Your task to perform on an android device: turn off location history Image 0: 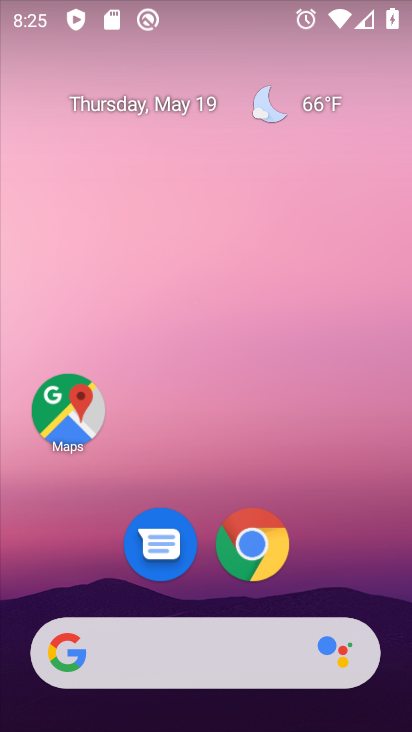
Step 0: drag from (382, 589) to (302, 25)
Your task to perform on an android device: turn off location history Image 1: 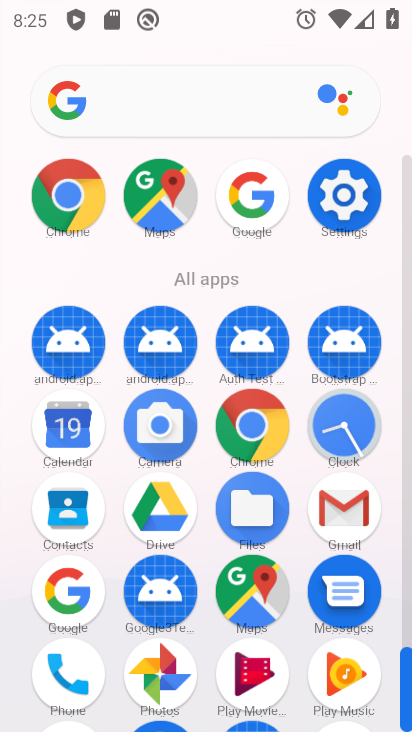
Step 1: click (340, 204)
Your task to perform on an android device: turn off location history Image 2: 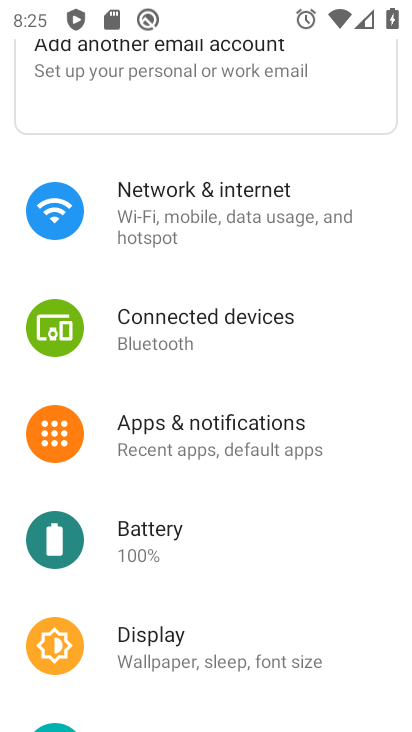
Step 2: drag from (224, 487) to (282, 158)
Your task to perform on an android device: turn off location history Image 3: 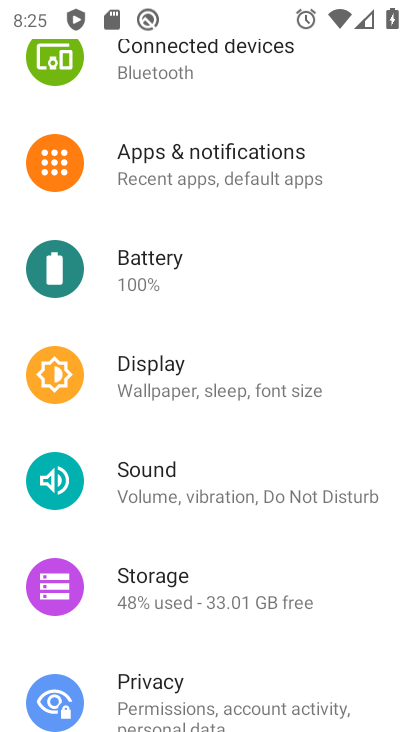
Step 3: drag from (189, 679) to (272, 285)
Your task to perform on an android device: turn off location history Image 4: 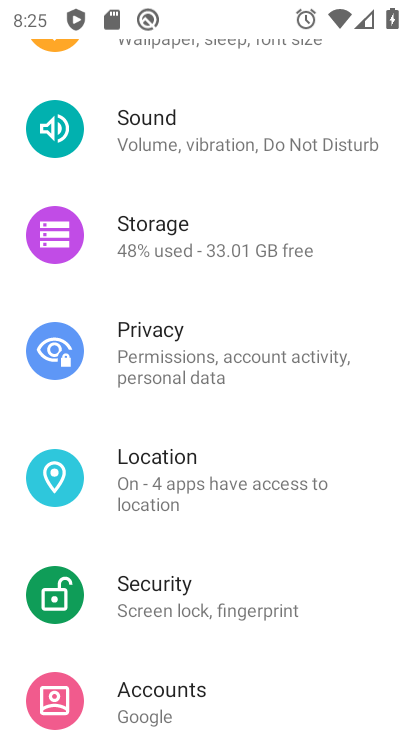
Step 4: click (161, 471)
Your task to perform on an android device: turn off location history Image 5: 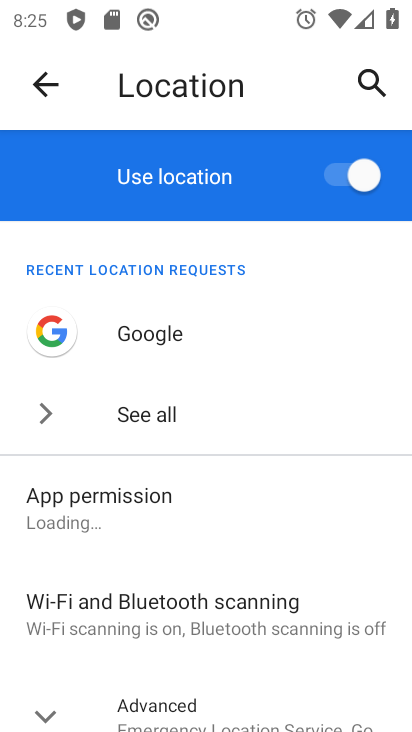
Step 5: click (139, 707)
Your task to perform on an android device: turn off location history Image 6: 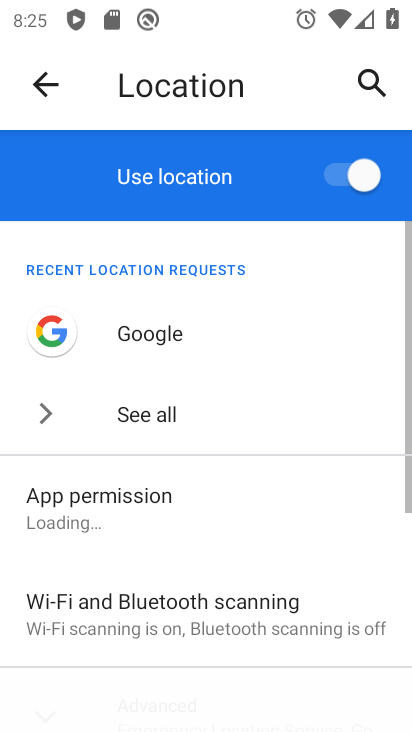
Step 6: drag from (174, 666) to (251, 261)
Your task to perform on an android device: turn off location history Image 7: 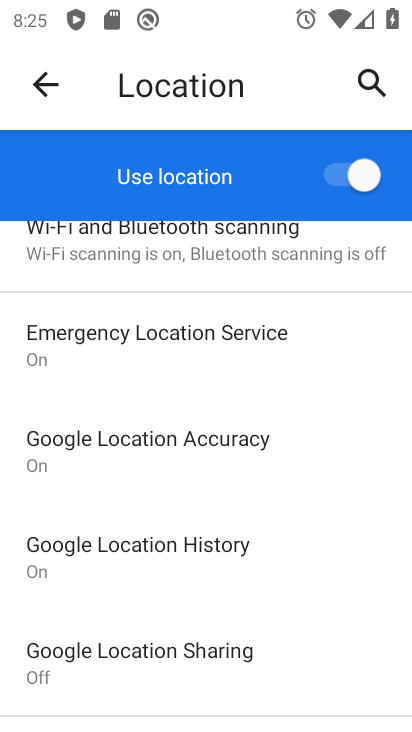
Step 7: click (216, 566)
Your task to perform on an android device: turn off location history Image 8: 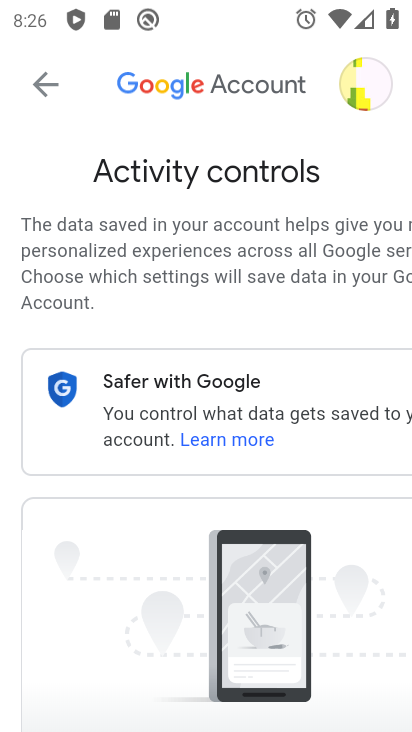
Step 8: drag from (318, 594) to (229, 40)
Your task to perform on an android device: turn off location history Image 9: 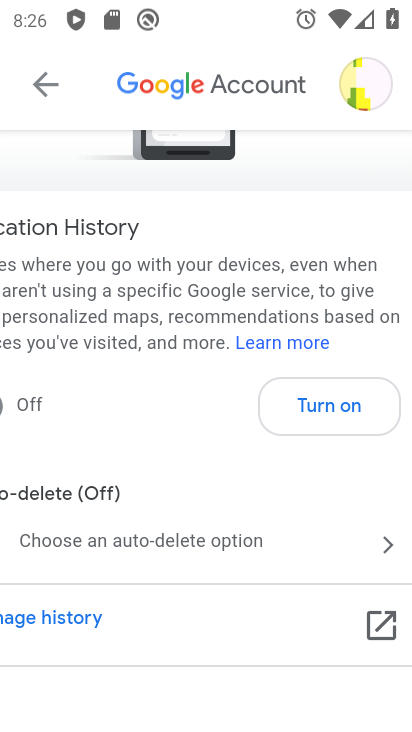
Step 9: click (328, 425)
Your task to perform on an android device: turn off location history Image 10: 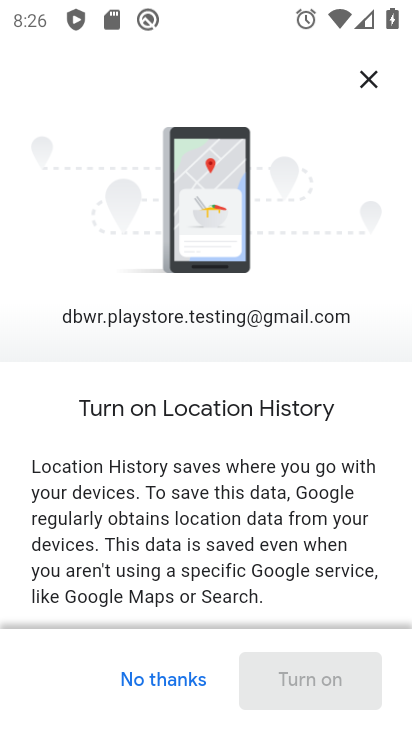
Step 10: task complete